Your task to perform on an android device: toggle location history Image 0: 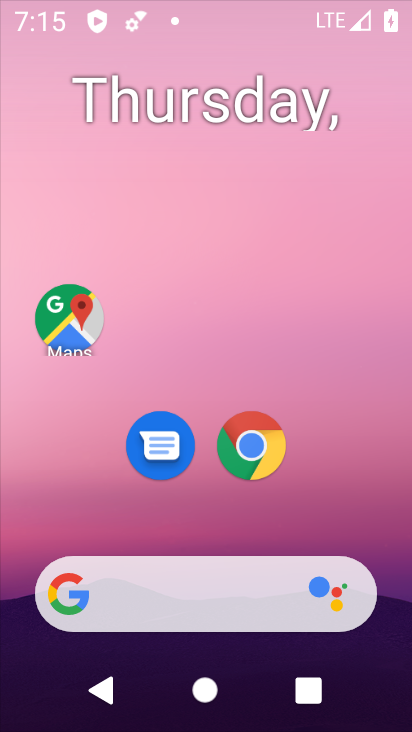
Step 0: drag from (274, 521) to (252, 181)
Your task to perform on an android device: toggle location history Image 1: 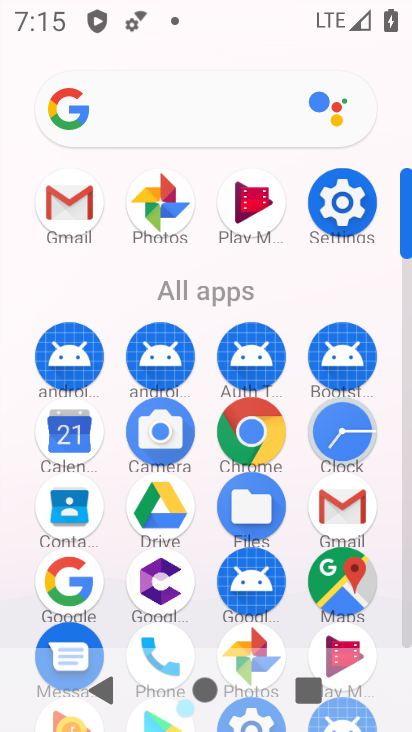
Step 1: drag from (287, 616) to (299, 352)
Your task to perform on an android device: toggle location history Image 2: 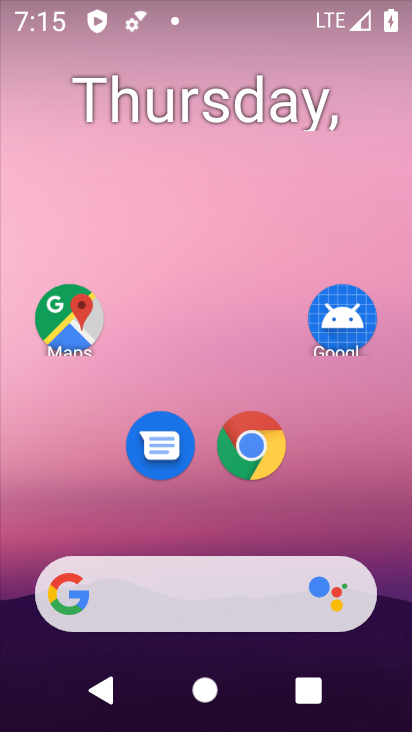
Step 2: drag from (263, 527) to (283, 221)
Your task to perform on an android device: toggle location history Image 3: 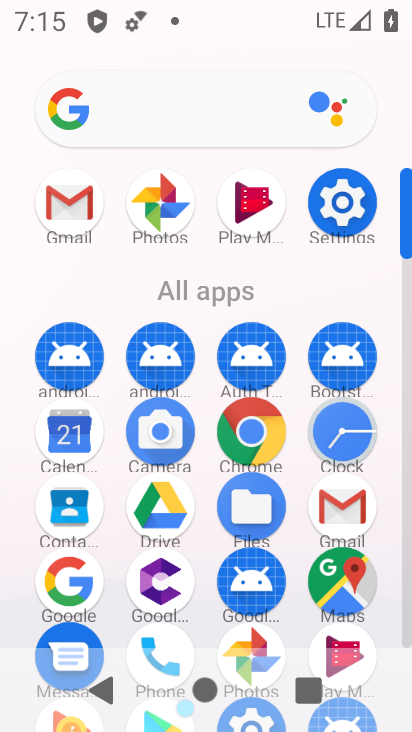
Step 3: drag from (174, 479) to (196, 142)
Your task to perform on an android device: toggle location history Image 4: 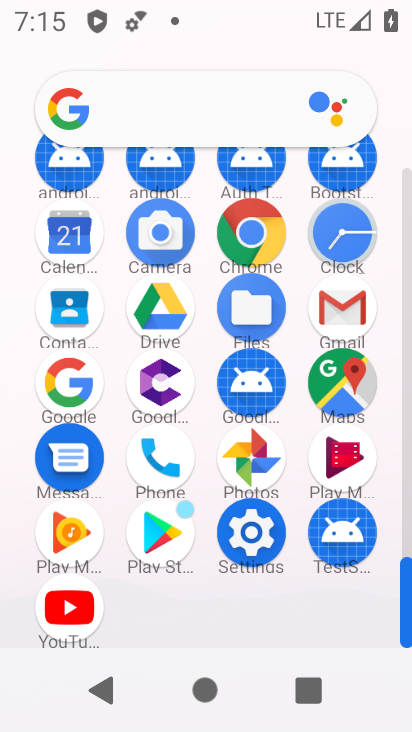
Step 4: click (331, 386)
Your task to perform on an android device: toggle location history Image 5: 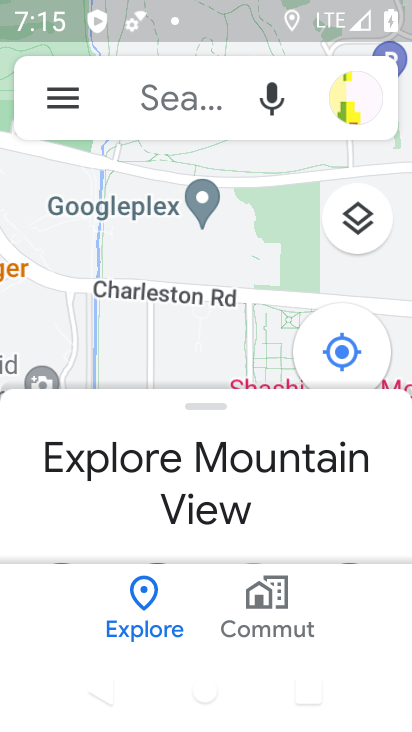
Step 5: click (59, 101)
Your task to perform on an android device: toggle location history Image 6: 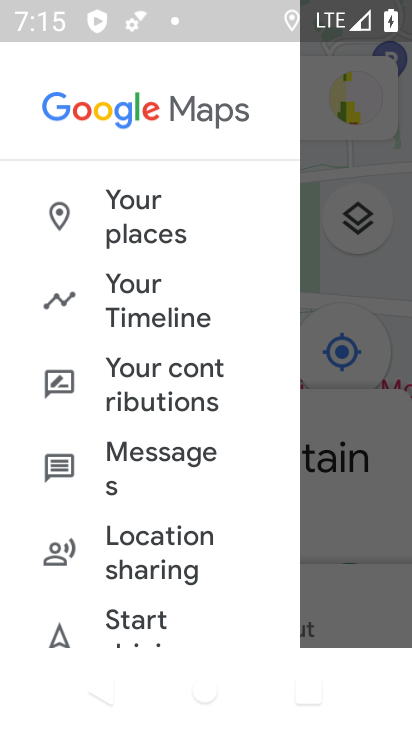
Step 6: click (143, 317)
Your task to perform on an android device: toggle location history Image 7: 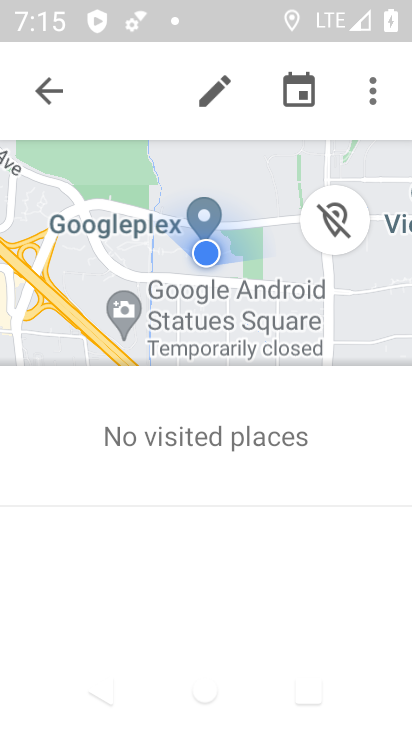
Step 7: click (373, 96)
Your task to perform on an android device: toggle location history Image 8: 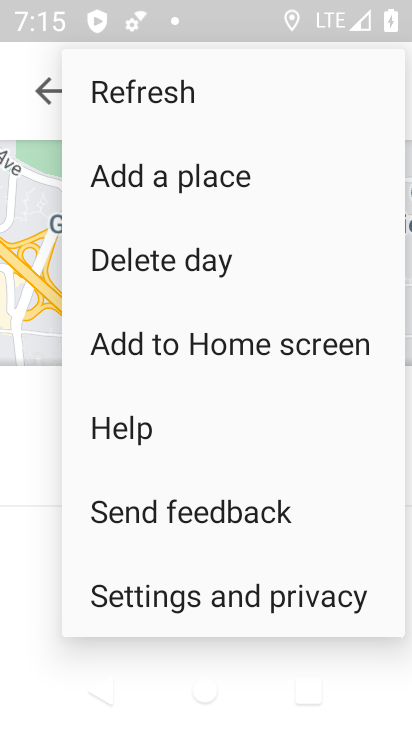
Step 8: click (249, 603)
Your task to perform on an android device: toggle location history Image 9: 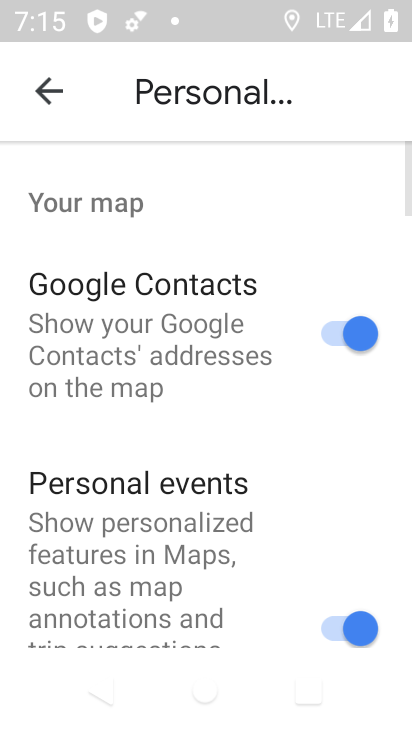
Step 9: drag from (202, 595) to (213, 287)
Your task to perform on an android device: toggle location history Image 10: 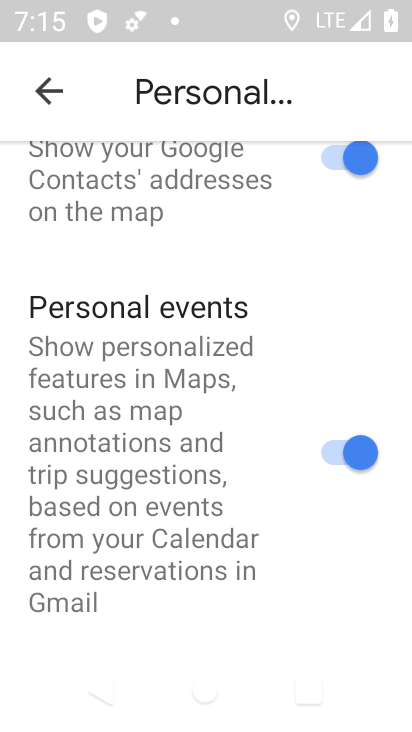
Step 10: drag from (200, 516) to (224, 203)
Your task to perform on an android device: toggle location history Image 11: 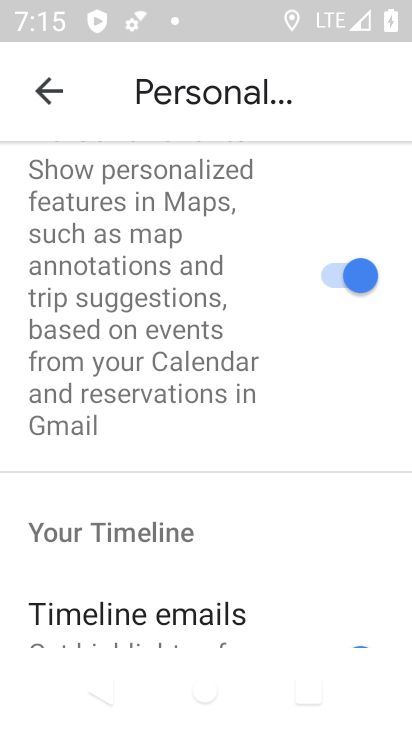
Step 11: drag from (191, 526) to (234, 201)
Your task to perform on an android device: toggle location history Image 12: 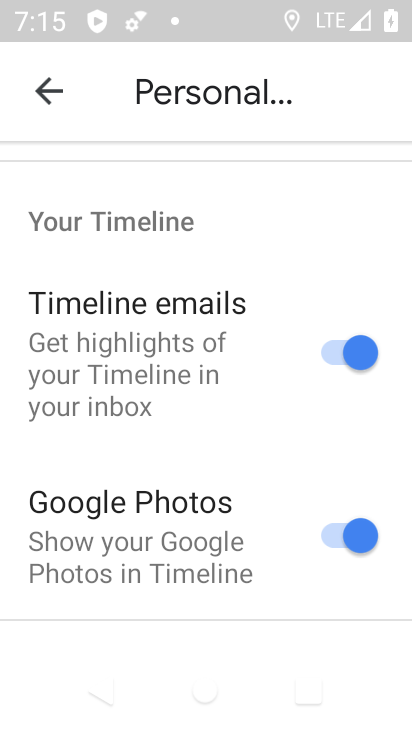
Step 12: drag from (164, 551) to (227, 199)
Your task to perform on an android device: toggle location history Image 13: 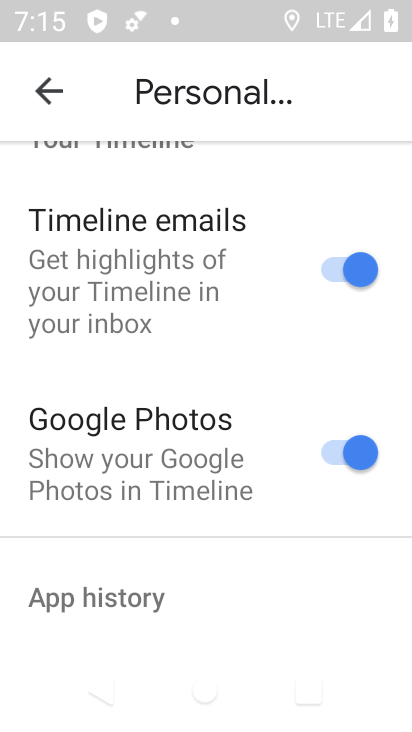
Step 13: drag from (208, 554) to (299, 220)
Your task to perform on an android device: toggle location history Image 14: 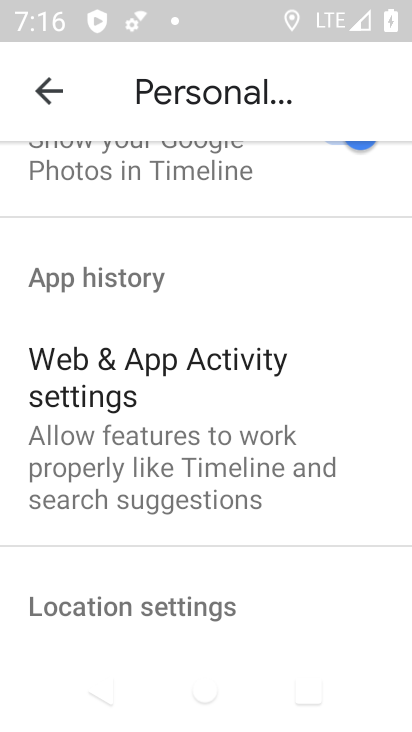
Step 14: drag from (219, 529) to (292, 240)
Your task to perform on an android device: toggle location history Image 15: 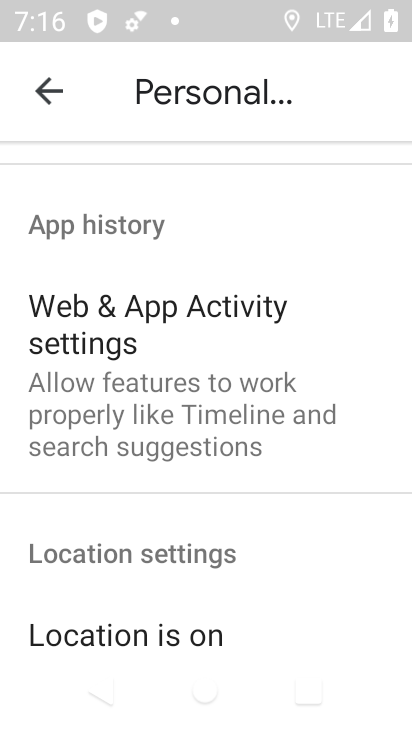
Step 15: drag from (141, 588) to (201, 277)
Your task to perform on an android device: toggle location history Image 16: 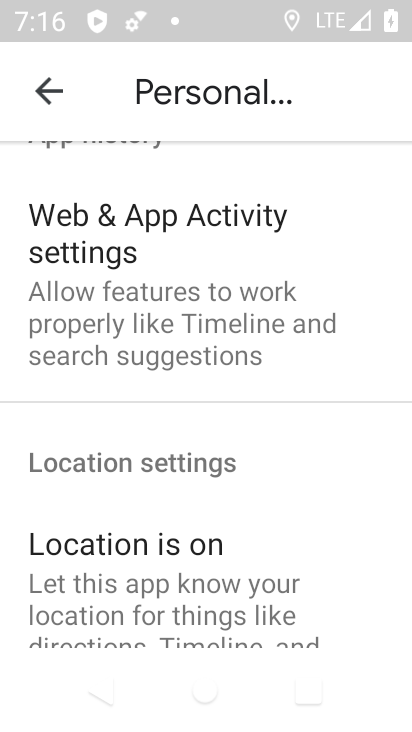
Step 16: drag from (205, 581) to (243, 266)
Your task to perform on an android device: toggle location history Image 17: 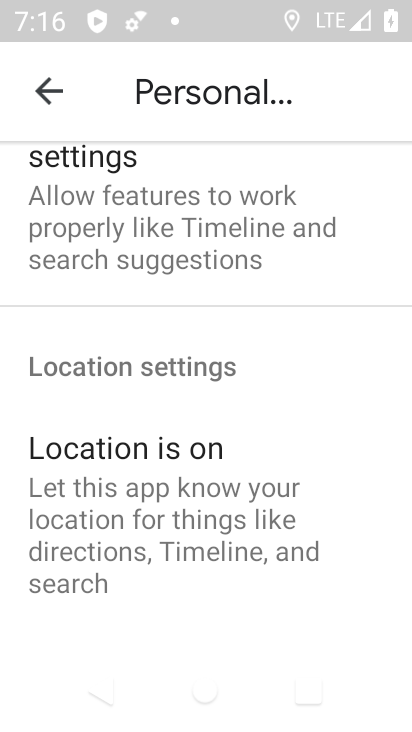
Step 17: drag from (215, 565) to (279, 238)
Your task to perform on an android device: toggle location history Image 18: 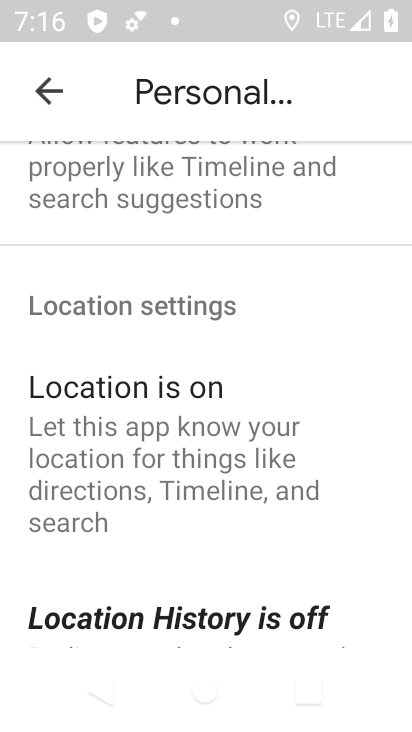
Step 18: drag from (244, 515) to (262, 253)
Your task to perform on an android device: toggle location history Image 19: 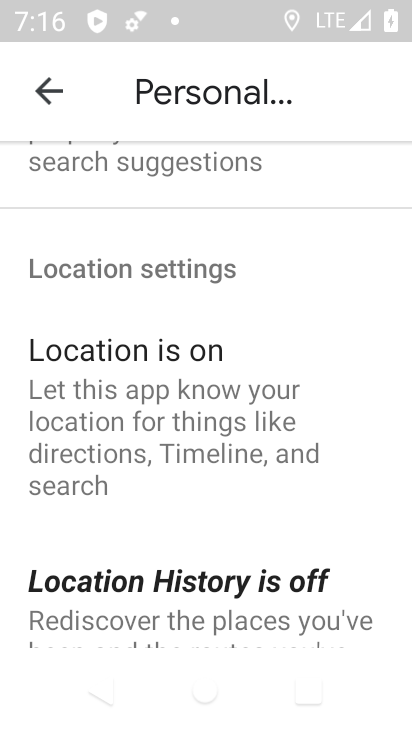
Step 19: drag from (227, 606) to (282, 280)
Your task to perform on an android device: toggle location history Image 20: 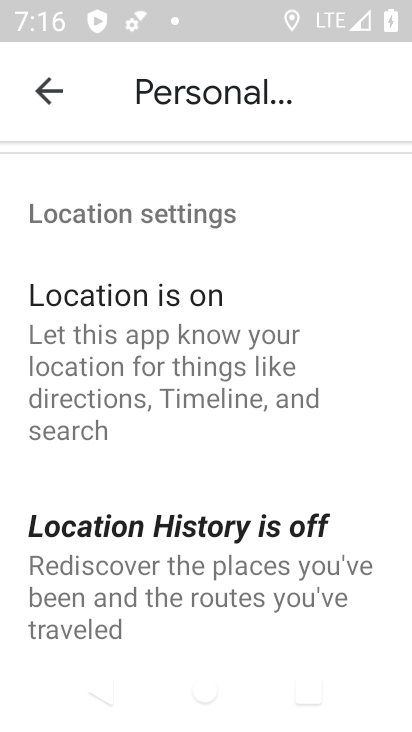
Step 20: click (199, 590)
Your task to perform on an android device: toggle location history Image 21: 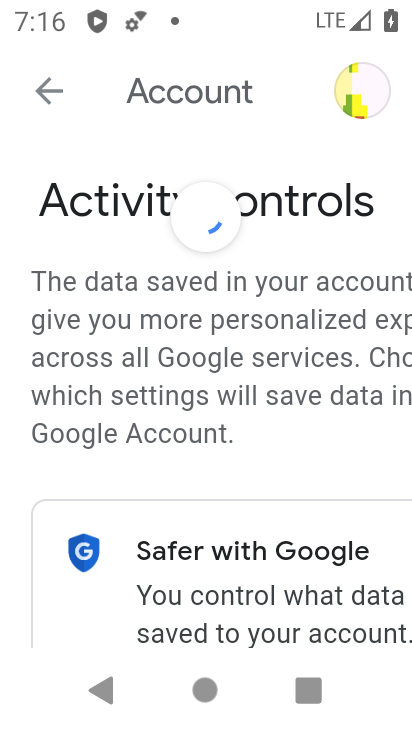
Step 21: drag from (255, 589) to (222, 255)
Your task to perform on an android device: toggle location history Image 22: 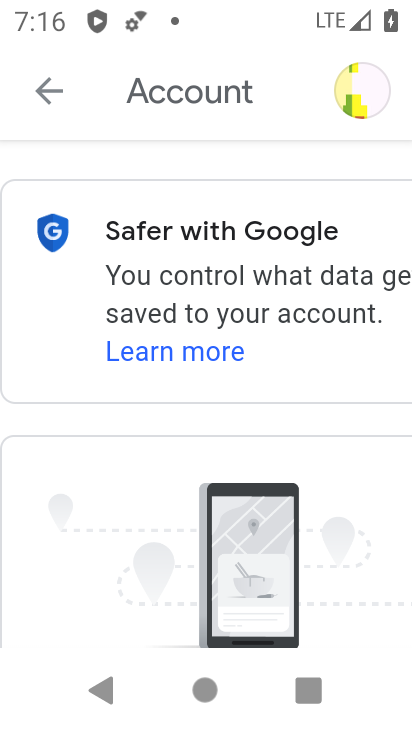
Step 22: drag from (274, 594) to (273, 286)
Your task to perform on an android device: toggle location history Image 23: 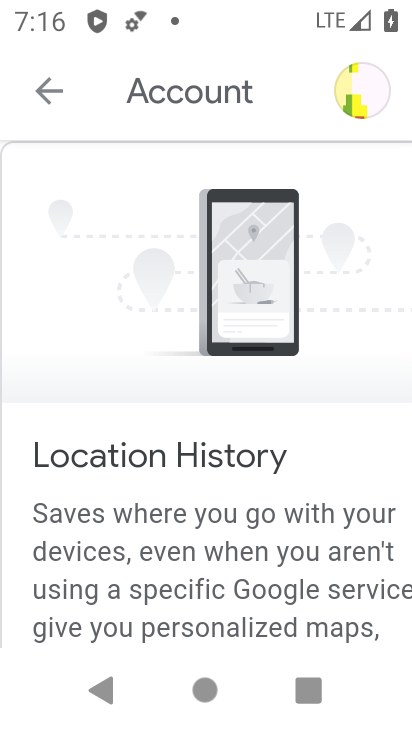
Step 23: drag from (323, 582) to (330, 259)
Your task to perform on an android device: toggle location history Image 24: 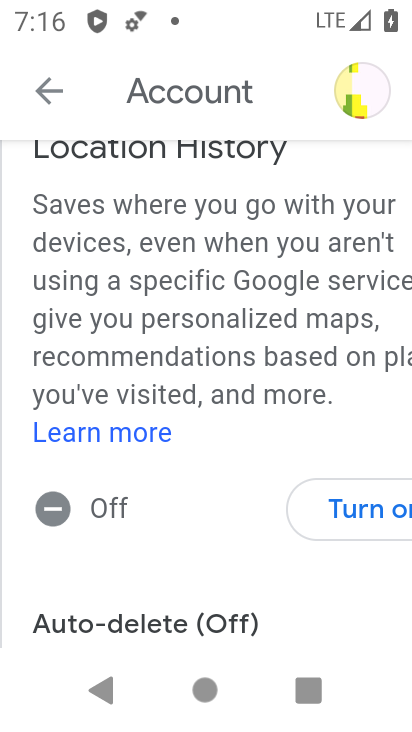
Step 24: click (329, 517)
Your task to perform on an android device: toggle location history Image 25: 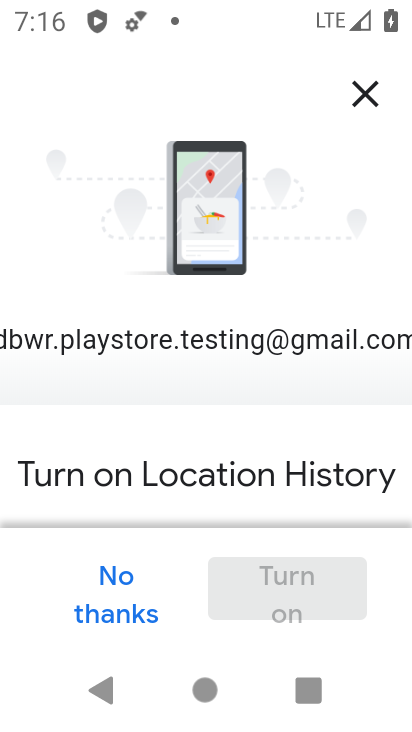
Step 25: drag from (312, 498) to (318, 217)
Your task to perform on an android device: toggle location history Image 26: 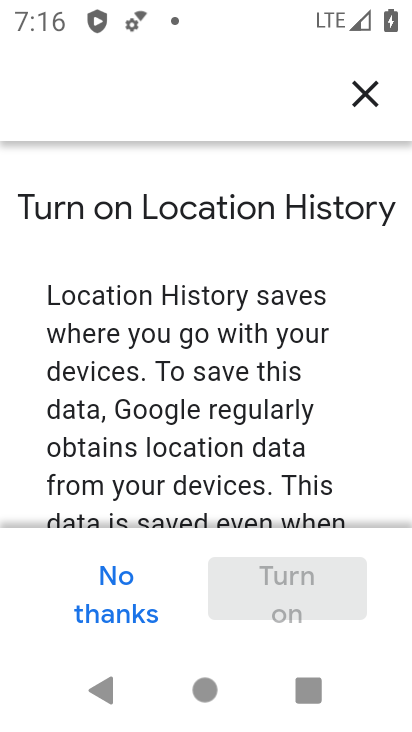
Step 26: drag from (253, 474) to (305, 178)
Your task to perform on an android device: toggle location history Image 27: 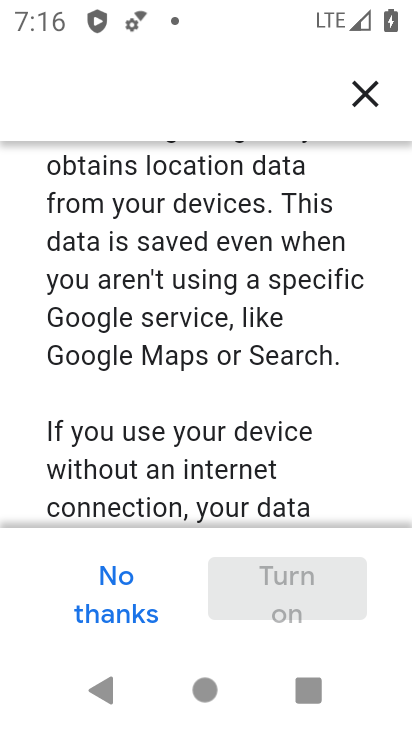
Step 27: drag from (235, 467) to (264, 221)
Your task to perform on an android device: toggle location history Image 28: 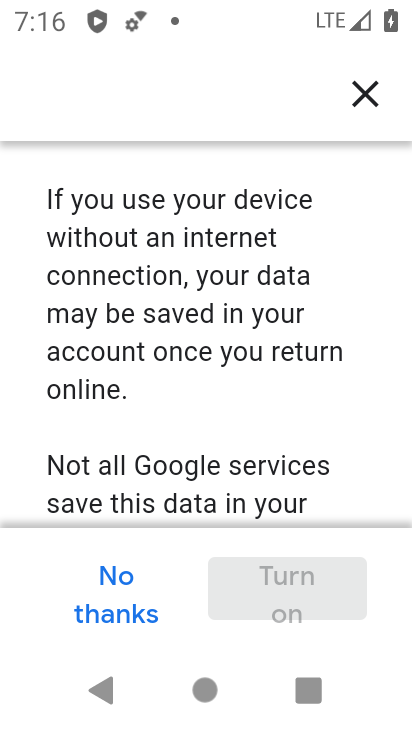
Step 28: drag from (237, 512) to (280, 192)
Your task to perform on an android device: toggle location history Image 29: 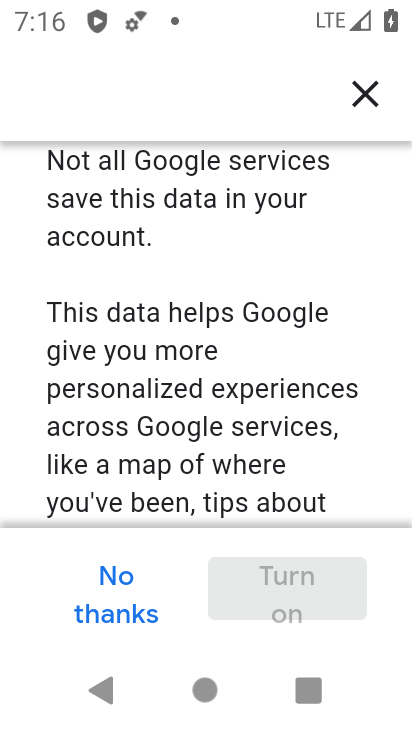
Step 29: drag from (188, 504) to (249, 200)
Your task to perform on an android device: toggle location history Image 30: 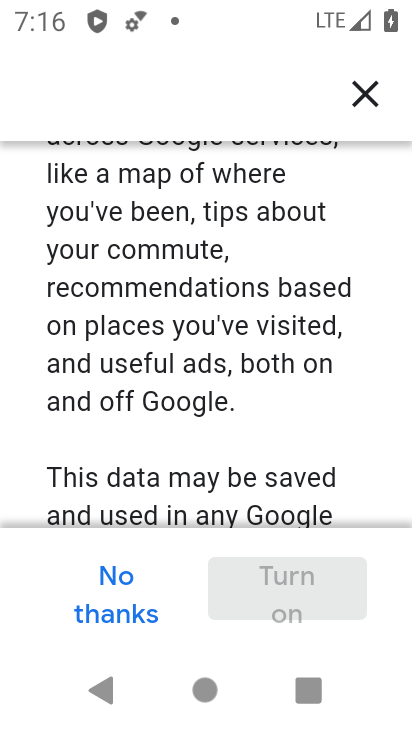
Step 30: drag from (216, 477) to (260, 181)
Your task to perform on an android device: toggle location history Image 31: 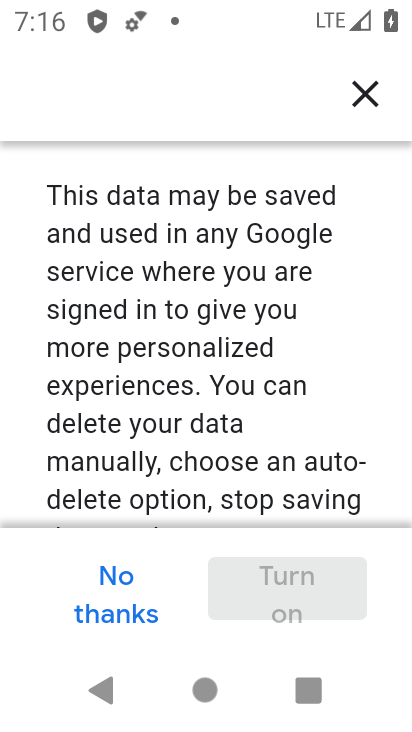
Step 31: drag from (245, 503) to (307, 202)
Your task to perform on an android device: toggle location history Image 32: 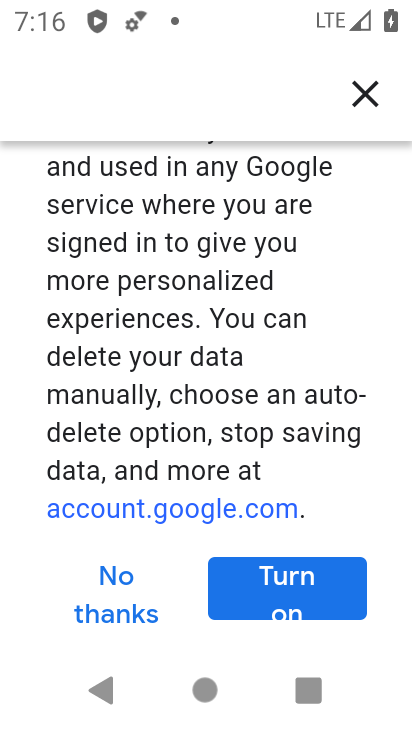
Step 32: click (255, 586)
Your task to perform on an android device: toggle location history Image 33: 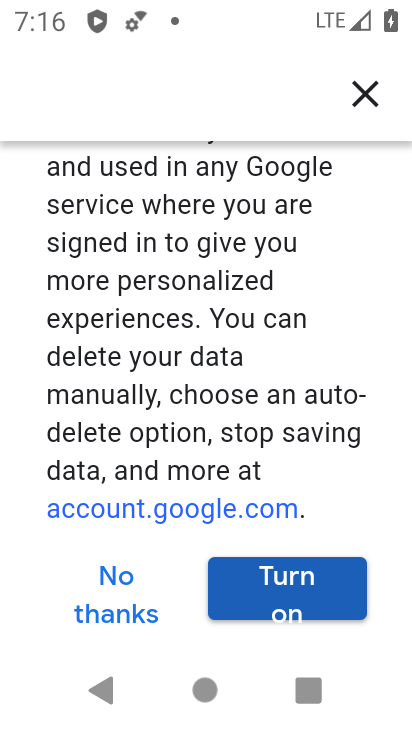
Step 33: click (253, 588)
Your task to perform on an android device: toggle location history Image 34: 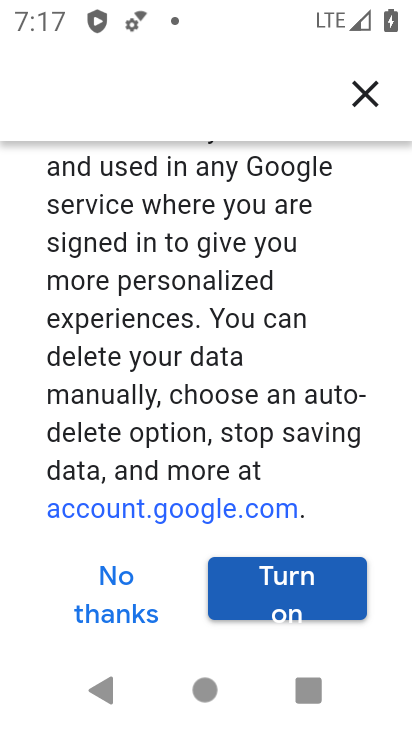
Step 34: click (257, 587)
Your task to perform on an android device: toggle location history Image 35: 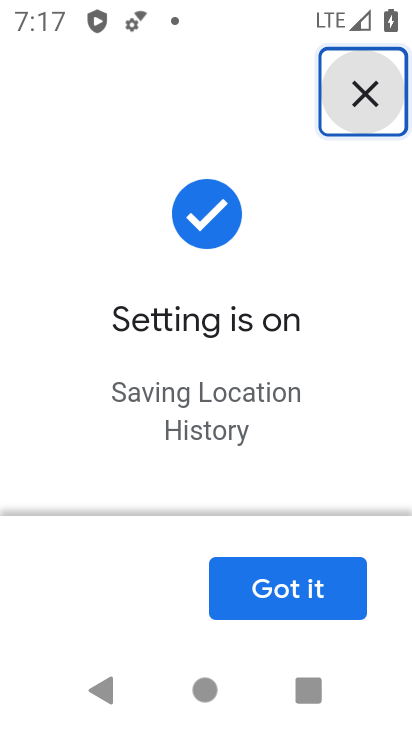
Step 35: click (258, 587)
Your task to perform on an android device: toggle location history Image 36: 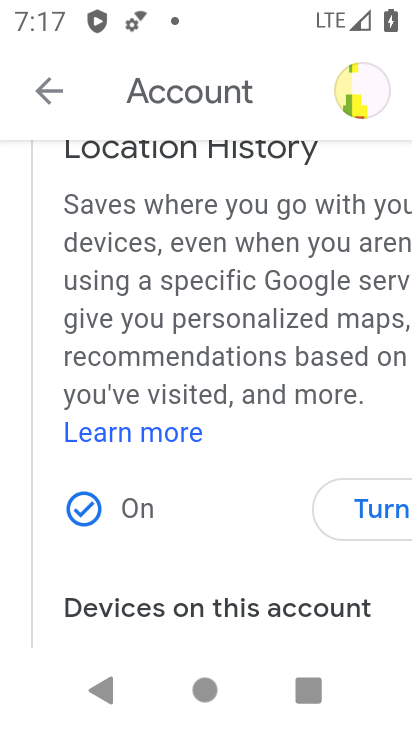
Step 36: task complete